Your task to perform on an android device: Show me recent news Image 0: 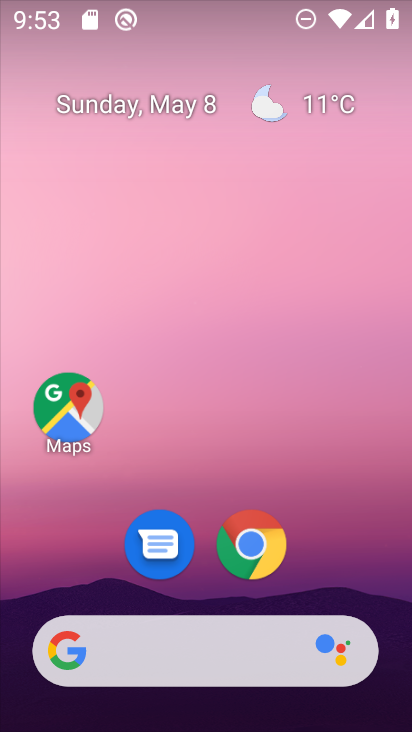
Step 0: click (248, 547)
Your task to perform on an android device: Show me recent news Image 1: 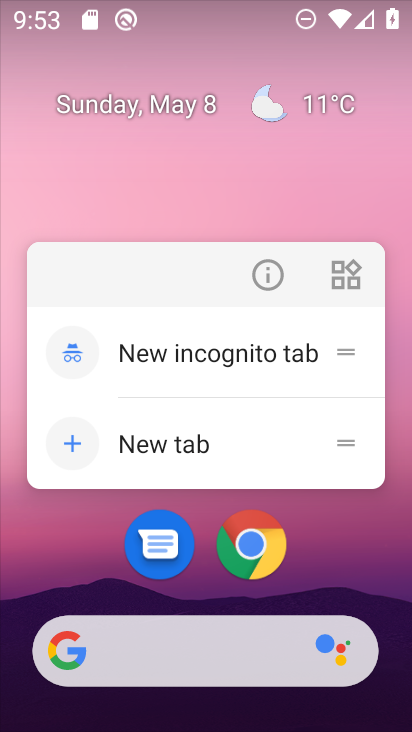
Step 1: click (222, 547)
Your task to perform on an android device: Show me recent news Image 2: 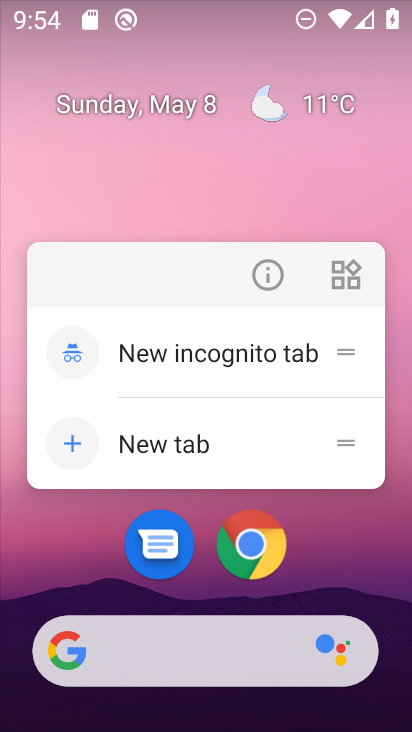
Step 2: click (240, 537)
Your task to perform on an android device: Show me recent news Image 3: 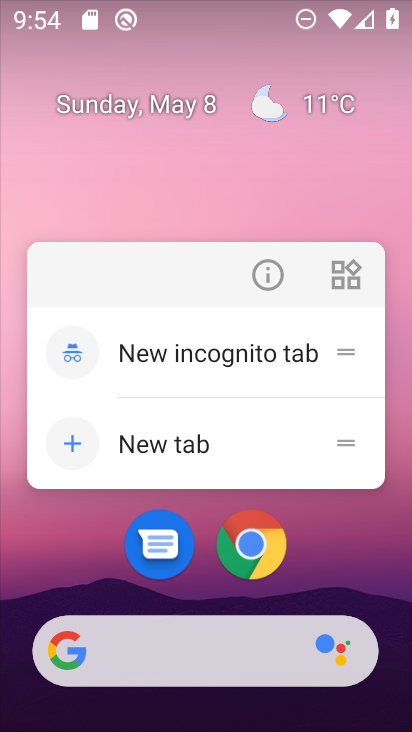
Step 3: click (245, 538)
Your task to perform on an android device: Show me recent news Image 4: 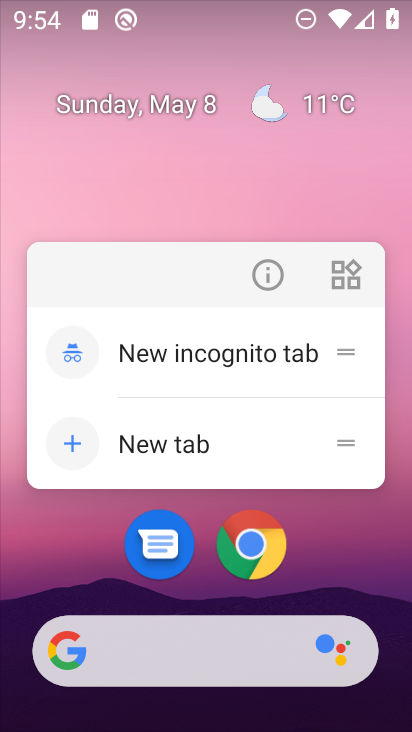
Step 4: click (245, 538)
Your task to perform on an android device: Show me recent news Image 5: 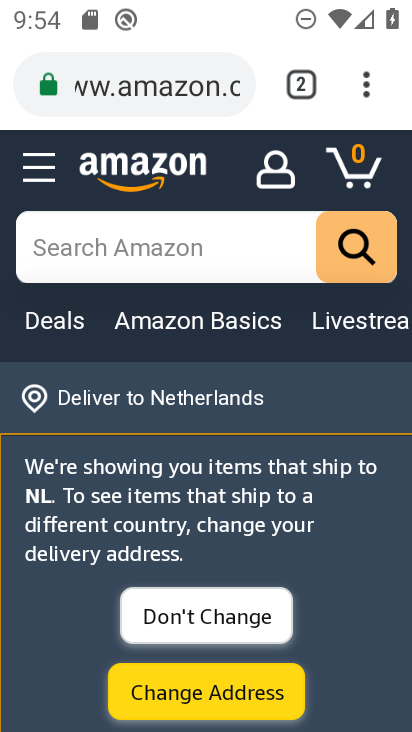
Step 5: click (120, 95)
Your task to perform on an android device: Show me recent news Image 6: 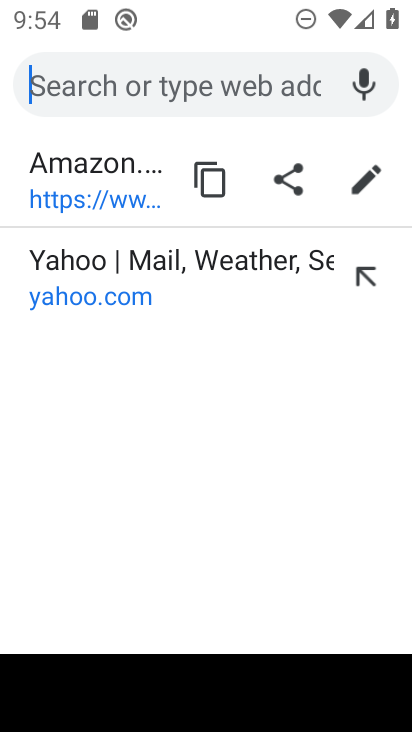
Step 6: click (120, 95)
Your task to perform on an android device: Show me recent news Image 7: 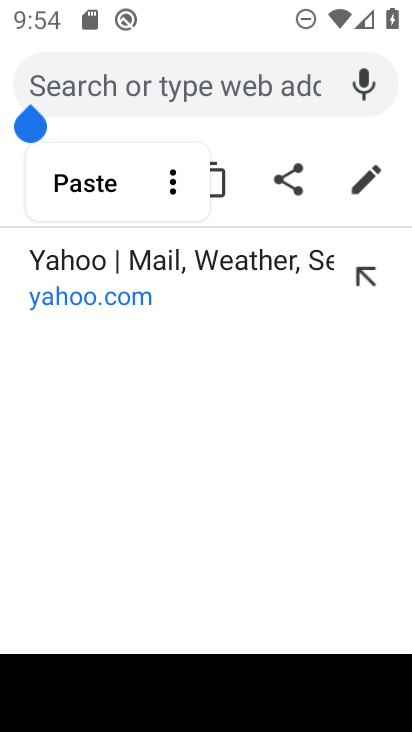
Step 7: click (280, 98)
Your task to perform on an android device: Show me recent news Image 8: 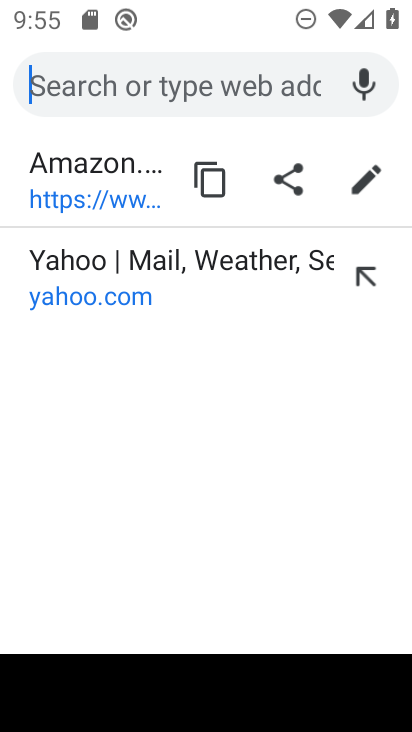
Step 8: type "Show me recent news"
Your task to perform on an android device: Show me recent news Image 9: 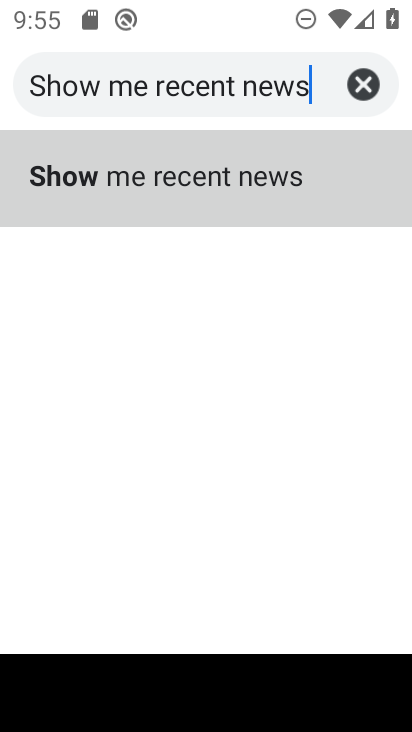
Step 9: click (256, 177)
Your task to perform on an android device: Show me recent news Image 10: 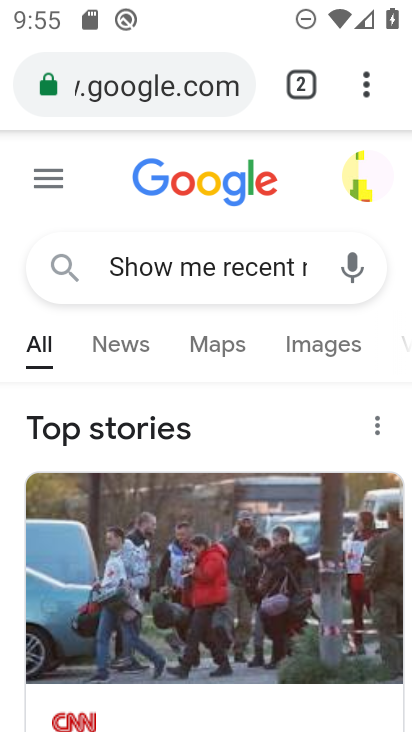
Step 10: task complete